Your task to perform on an android device: What's the weather going to be this weekend? Image 0: 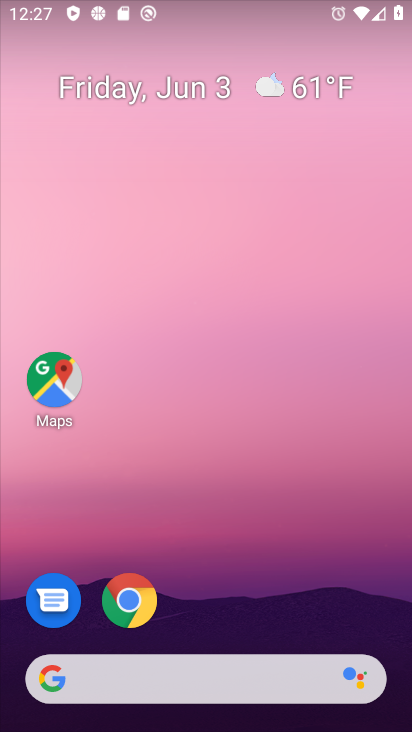
Step 0: click (331, 93)
Your task to perform on an android device: What's the weather going to be this weekend? Image 1: 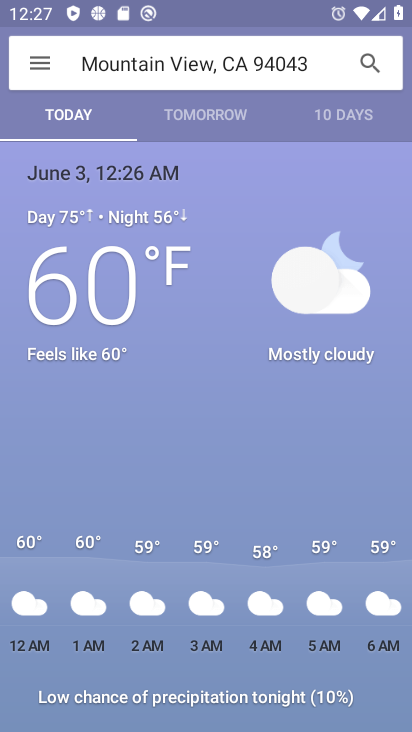
Step 1: click (324, 121)
Your task to perform on an android device: What's the weather going to be this weekend? Image 2: 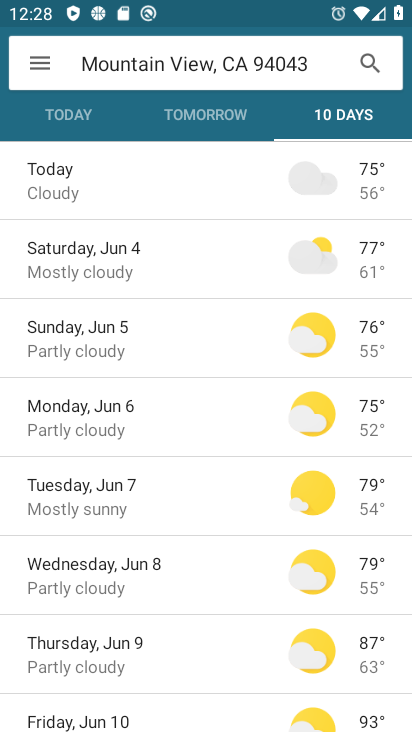
Step 2: task complete